Your task to perform on an android device: Show me popular videos on Youtube Image 0: 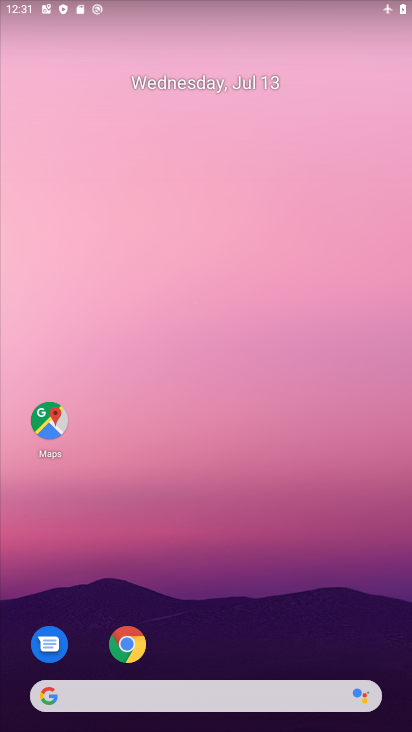
Step 0: drag from (310, 648) to (171, 113)
Your task to perform on an android device: Show me popular videos on Youtube Image 1: 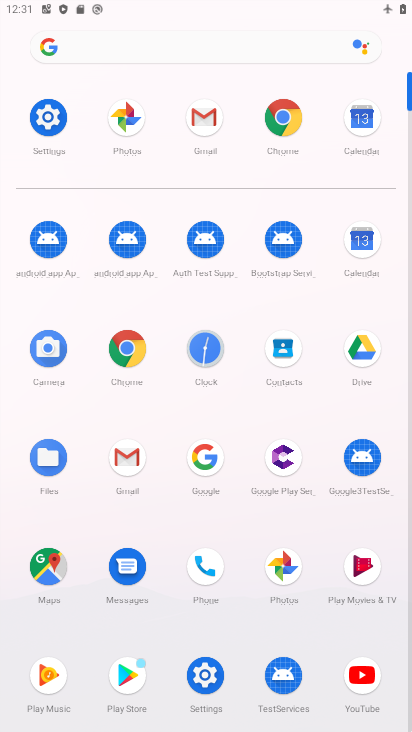
Step 1: click (367, 680)
Your task to perform on an android device: Show me popular videos on Youtube Image 2: 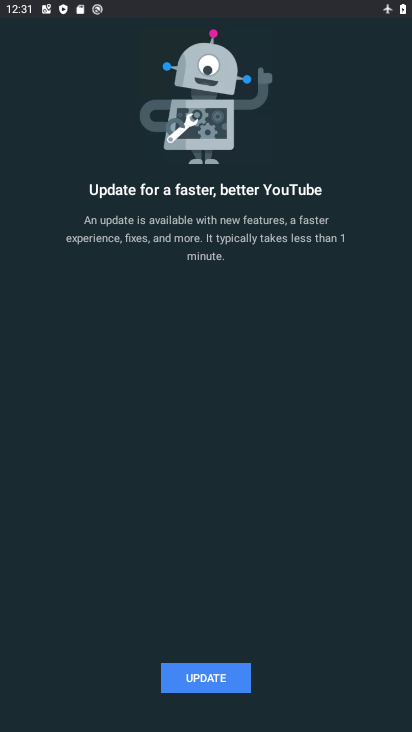
Step 2: task complete